Your task to perform on an android device: change the clock display to digital Image 0: 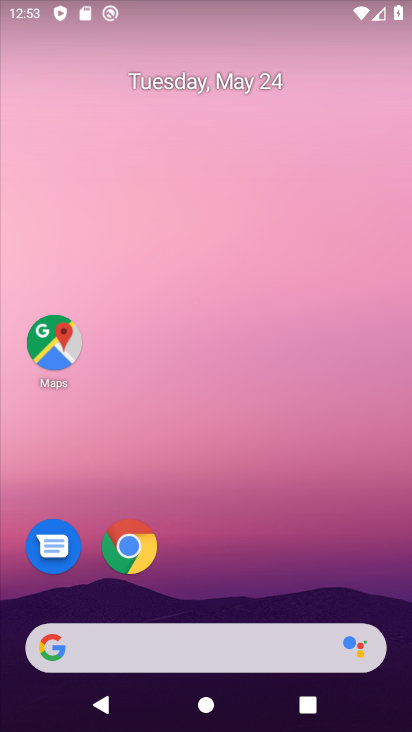
Step 0: drag from (197, 588) to (264, 167)
Your task to perform on an android device: change the clock display to digital Image 1: 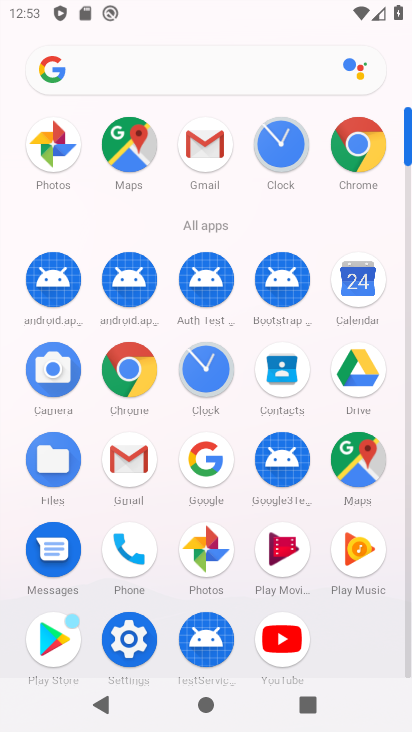
Step 1: click (214, 361)
Your task to perform on an android device: change the clock display to digital Image 2: 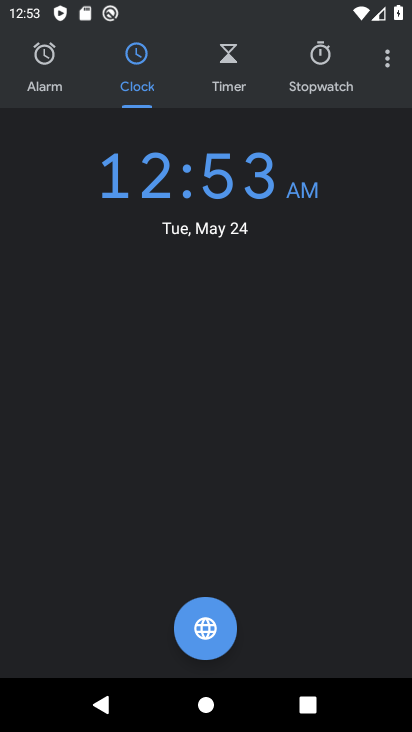
Step 2: click (397, 60)
Your task to perform on an android device: change the clock display to digital Image 3: 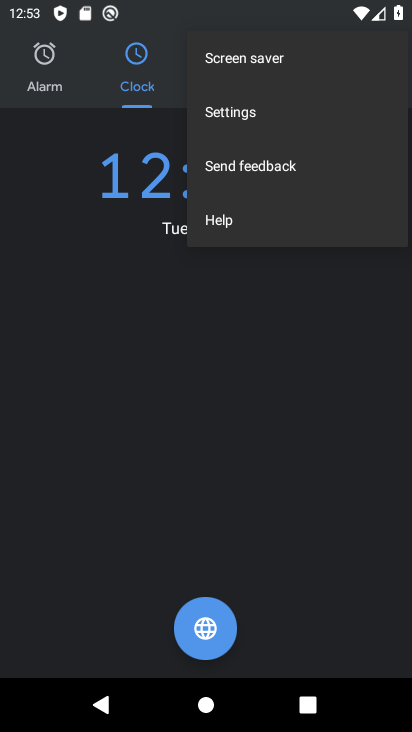
Step 3: click (366, 105)
Your task to perform on an android device: change the clock display to digital Image 4: 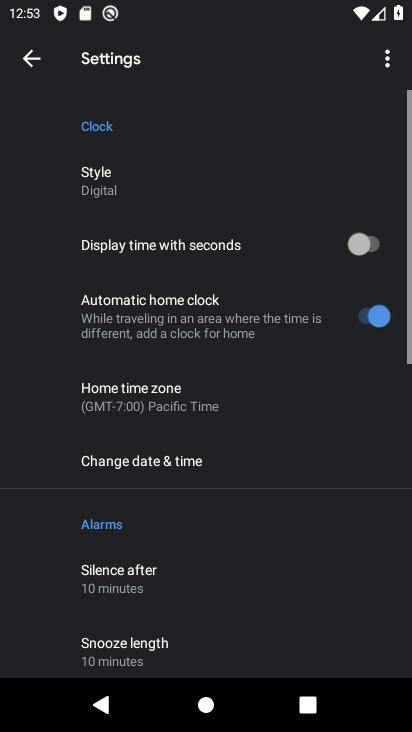
Step 4: click (222, 180)
Your task to perform on an android device: change the clock display to digital Image 5: 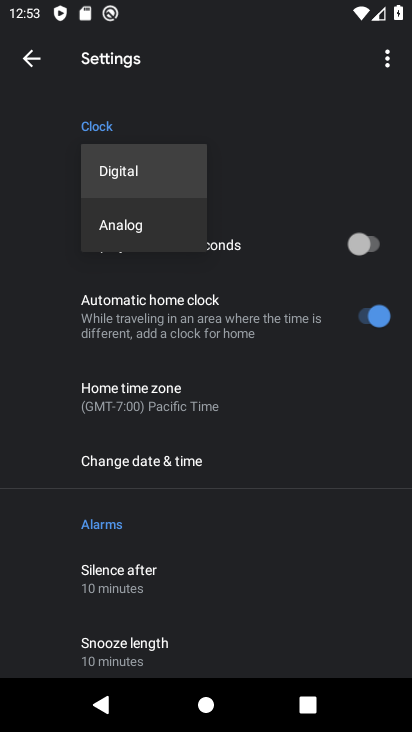
Step 5: task complete